Your task to perform on an android device: What's the weather? Image 0: 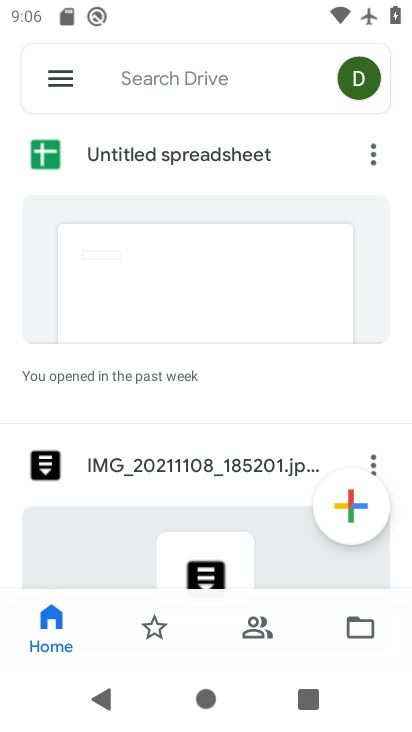
Step 0: press home button
Your task to perform on an android device: What's the weather? Image 1: 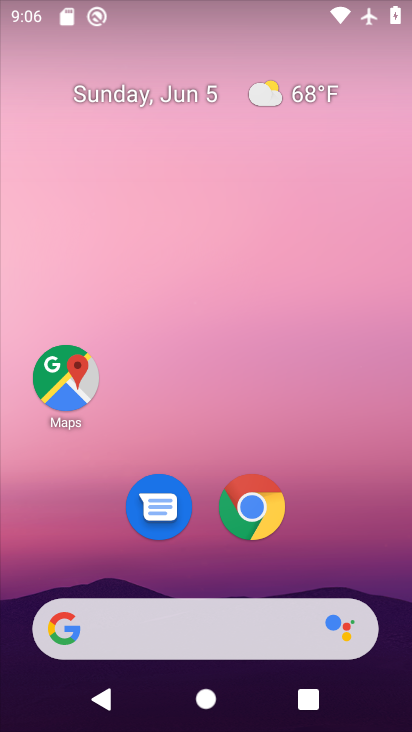
Step 1: click (286, 92)
Your task to perform on an android device: What's the weather? Image 2: 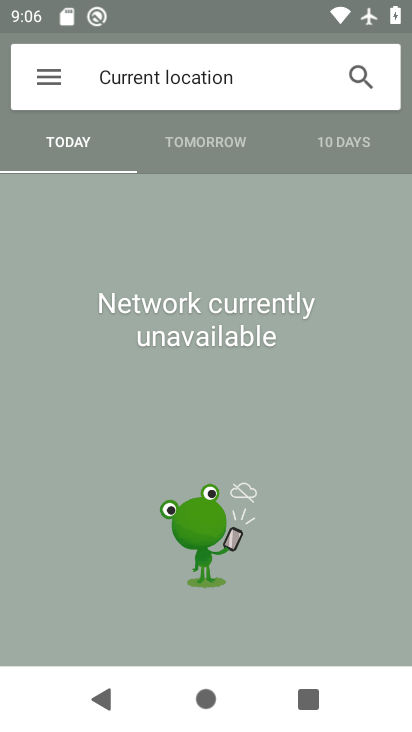
Step 2: drag from (196, 260) to (162, 526)
Your task to perform on an android device: What's the weather? Image 3: 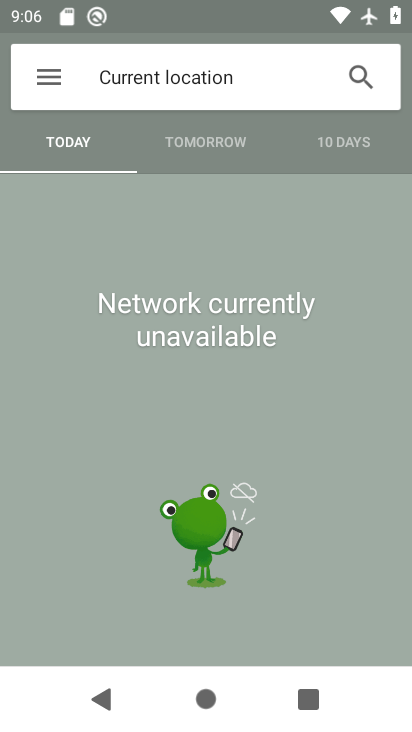
Step 3: click (53, 150)
Your task to perform on an android device: What's the weather? Image 4: 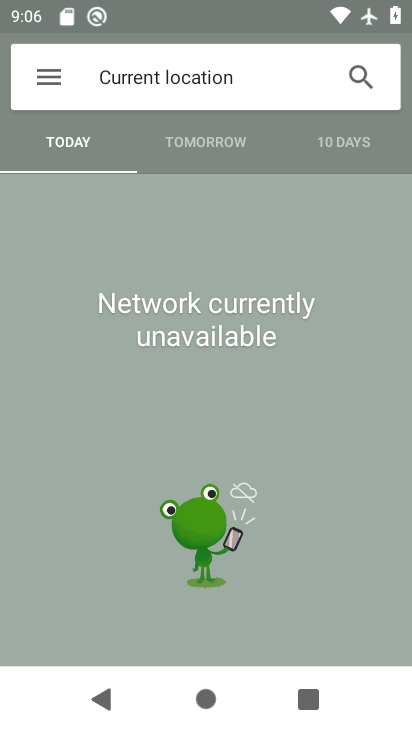
Step 4: click (210, 321)
Your task to perform on an android device: What's the weather? Image 5: 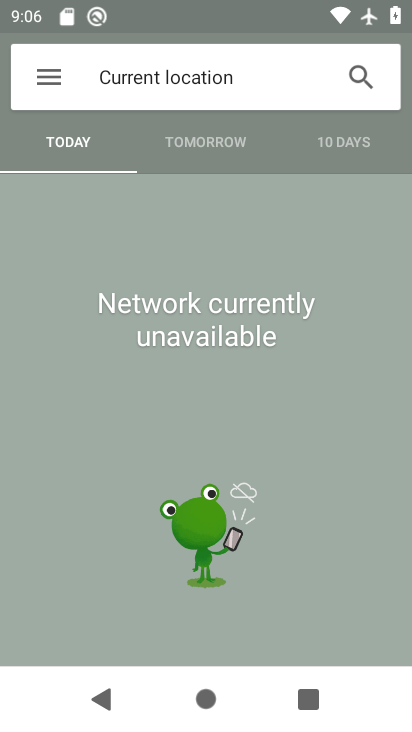
Step 5: click (210, 321)
Your task to perform on an android device: What's the weather? Image 6: 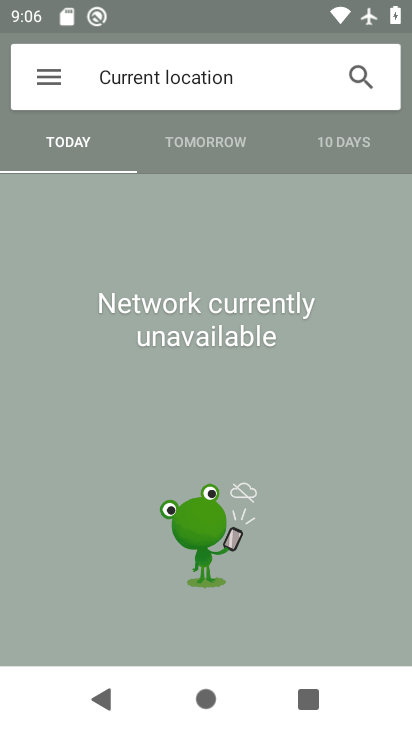
Step 6: click (196, 143)
Your task to perform on an android device: What's the weather? Image 7: 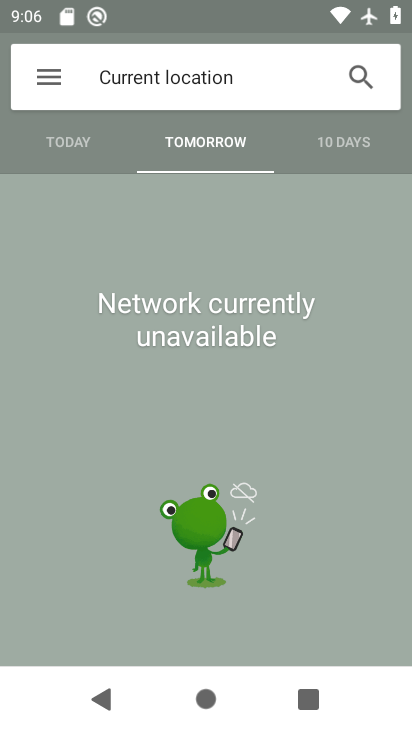
Step 7: click (68, 145)
Your task to perform on an android device: What's the weather? Image 8: 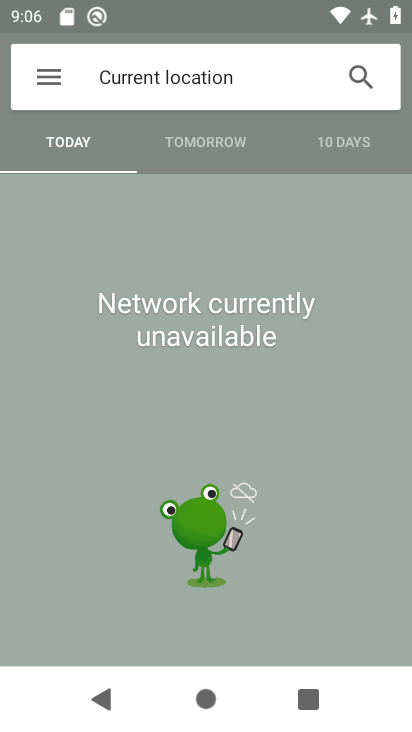
Step 8: click (68, 145)
Your task to perform on an android device: What's the weather? Image 9: 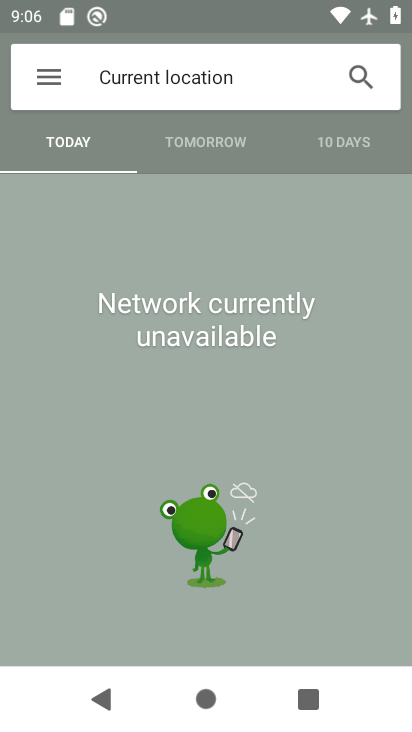
Step 9: click (214, 549)
Your task to perform on an android device: What's the weather? Image 10: 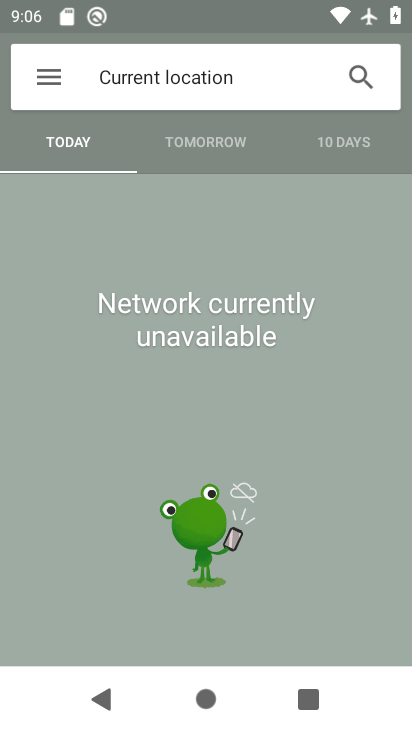
Step 10: task complete